Your task to perform on an android device: Open calendar and show me the fourth week of next month Image 0: 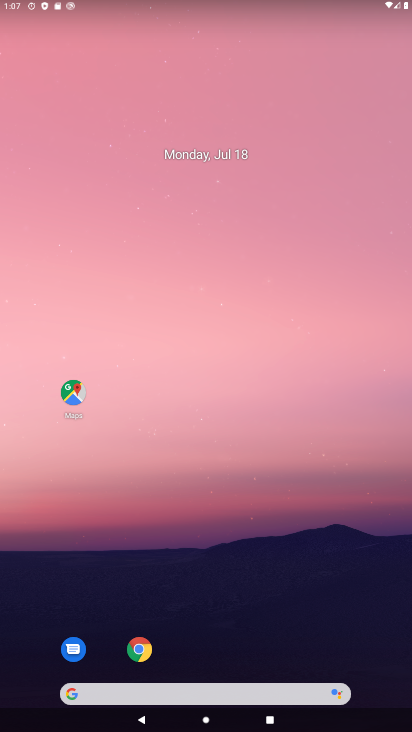
Step 0: drag from (209, 670) to (157, 115)
Your task to perform on an android device: Open calendar and show me the fourth week of next month Image 1: 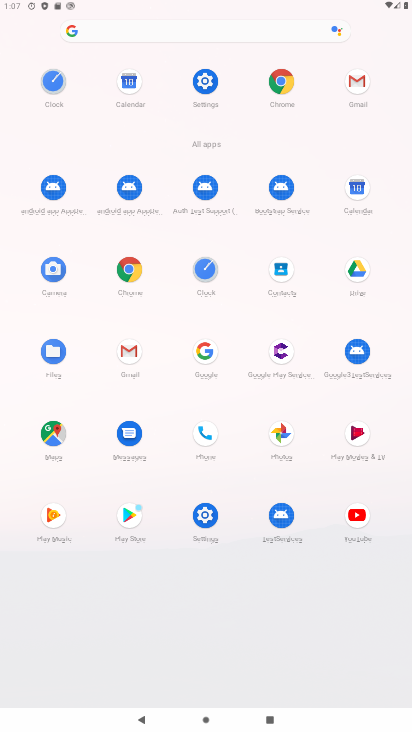
Step 1: click (359, 195)
Your task to perform on an android device: Open calendar and show me the fourth week of next month Image 2: 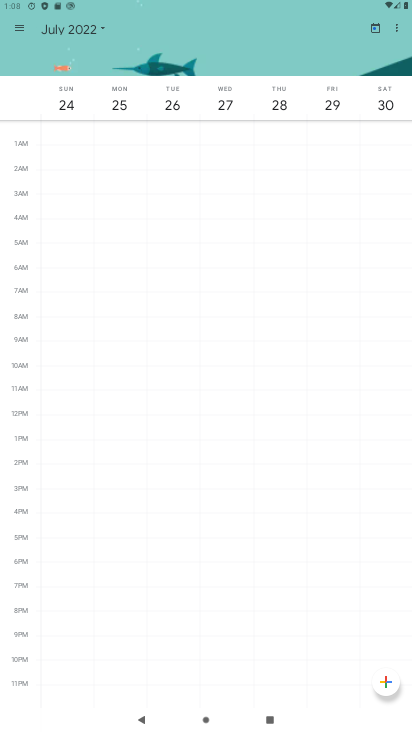
Step 2: task complete